Your task to perform on an android device: change alarm snooze length Image 0: 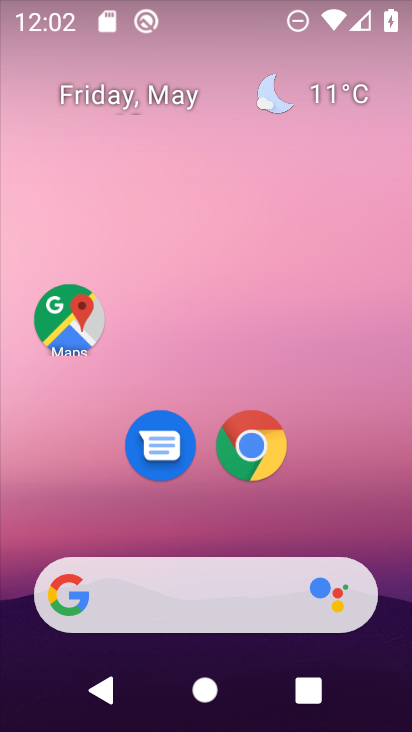
Step 0: drag from (196, 580) to (133, 77)
Your task to perform on an android device: change alarm snooze length Image 1: 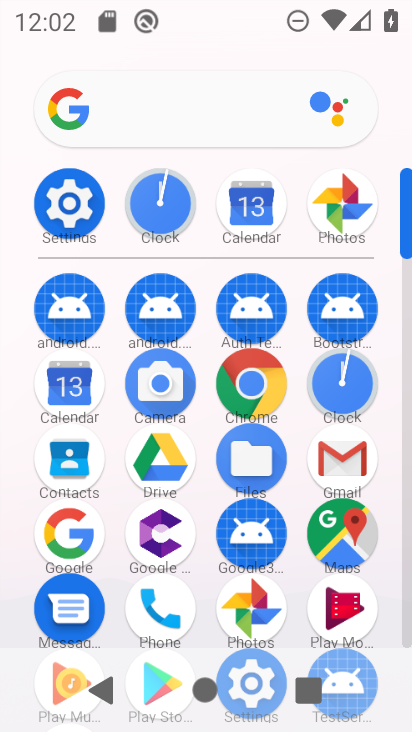
Step 1: click (325, 400)
Your task to perform on an android device: change alarm snooze length Image 2: 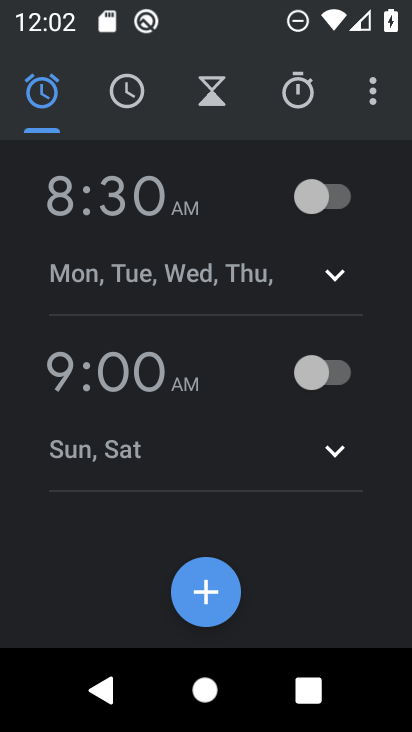
Step 2: click (369, 101)
Your task to perform on an android device: change alarm snooze length Image 3: 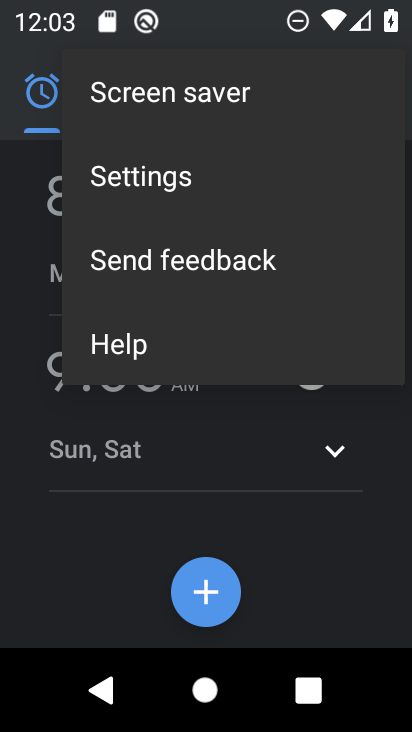
Step 3: click (141, 182)
Your task to perform on an android device: change alarm snooze length Image 4: 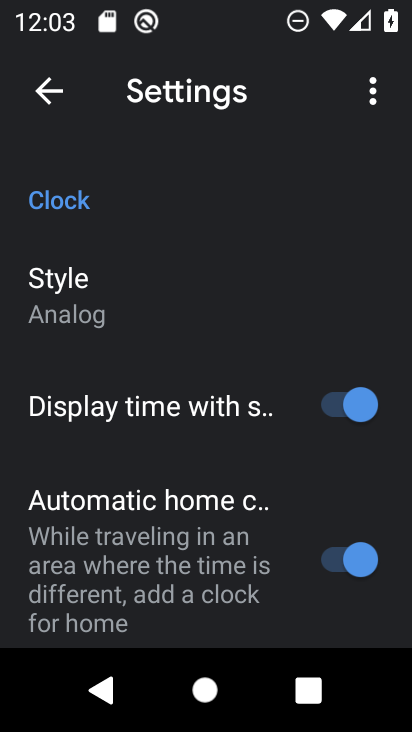
Step 4: drag from (100, 329) to (179, 12)
Your task to perform on an android device: change alarm snooze length Image 5: 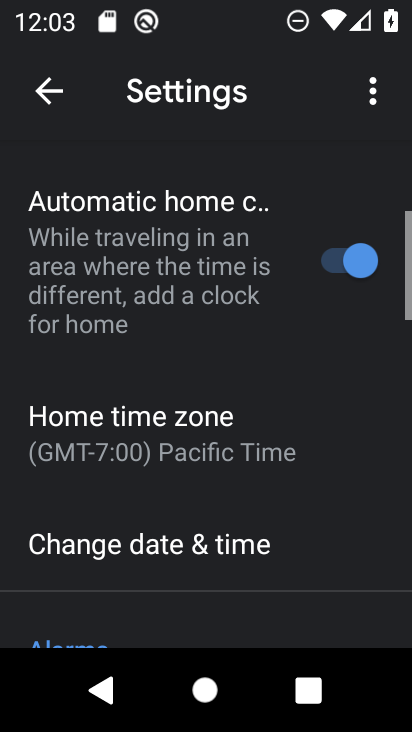
Step 5: drag from (197, 473) to (246, 5)
Your task to perform on an android device: change alarm snooze length Image 6: 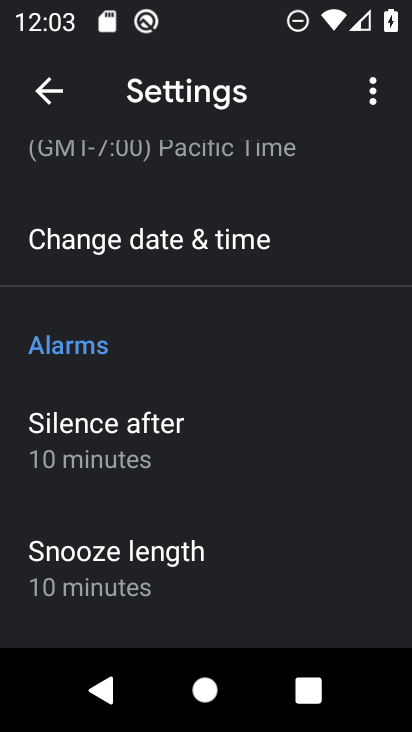
Step 6: click (168, 553)
Your task to perform on an android device: change alarm snooze length Image 7: 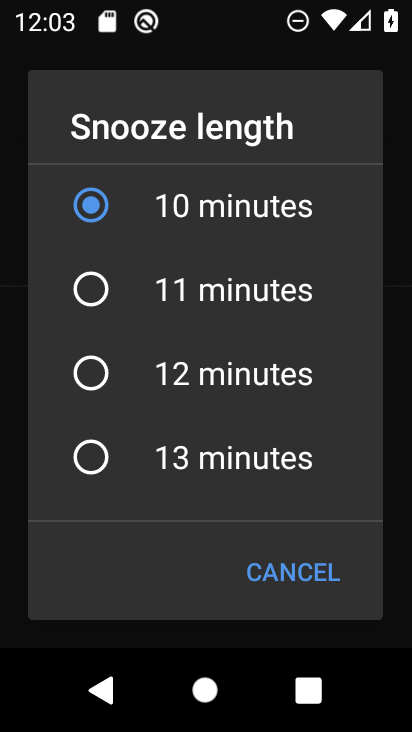
Step 7: click (193, 381)
Your task to perform on an android device: change alarm snooze length Image 8: 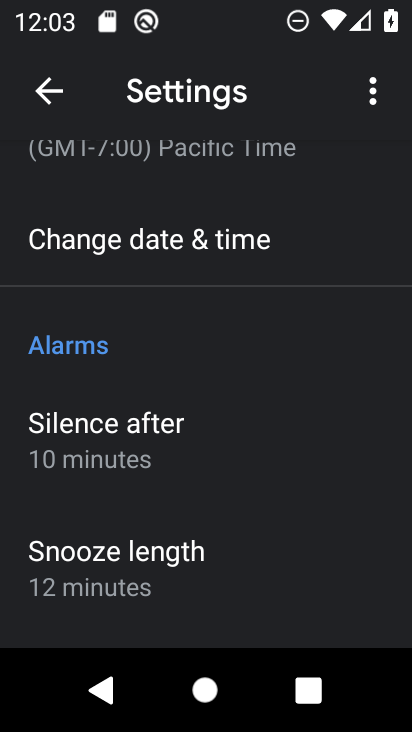
Step 8: task complete